Your task to perform on an android device: add a label to a message in the gmail app Image 0: 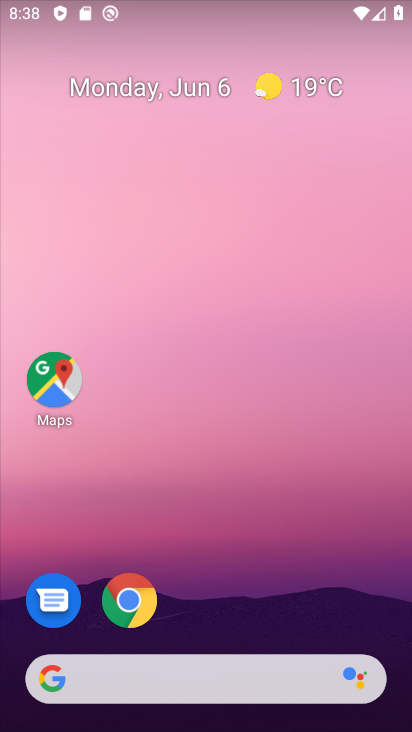
Step 0: press home button
Your task to perform on an android device: add a label to a message in the gmail app Image 1: 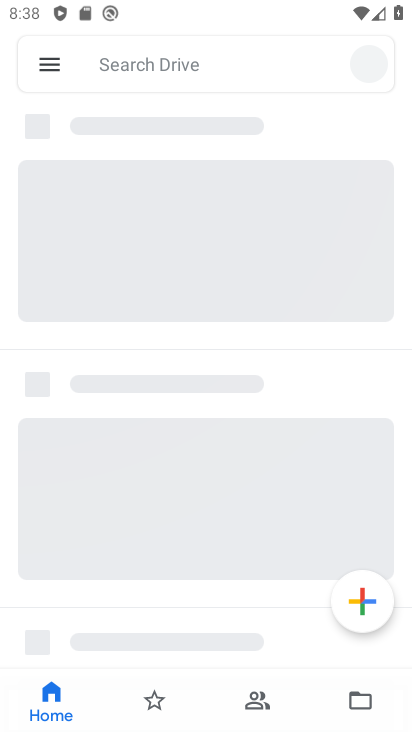
Step 1: click (180, 4)
Your task to perform on an android device: add a label to a message in the gmail app Image 2: 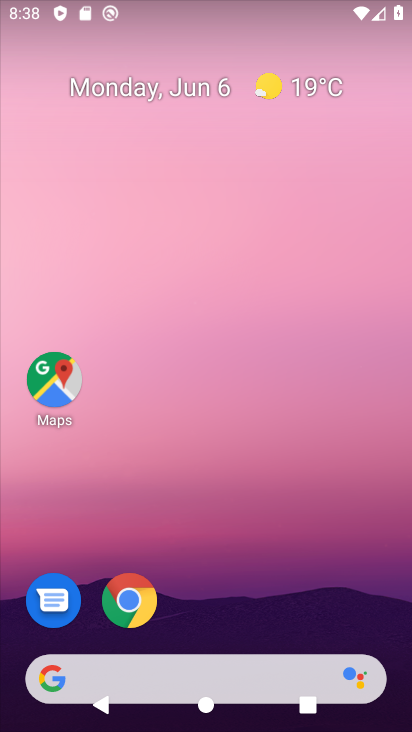
Step 2: drag from (261, 542) to (244, 11)
Your task to perform on an android device: add a label to a message in the gmail app Image 3: 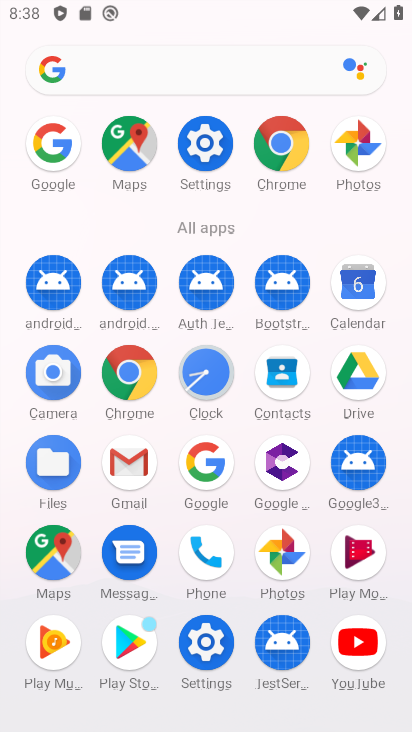
Step 3: click (123, 462)
Your task to perform on an android device: add a label to a message in the gmail app Image 4: 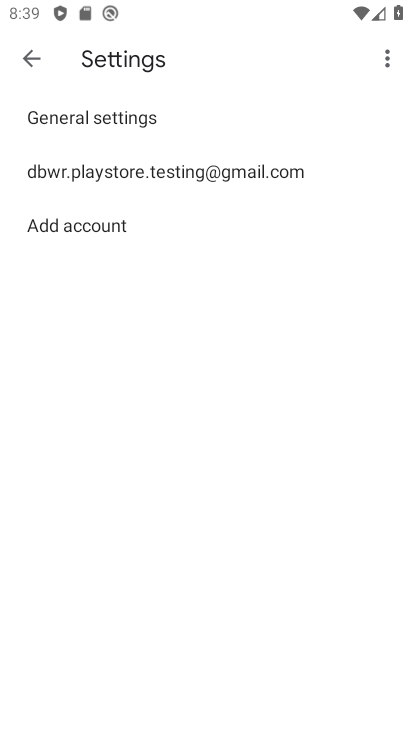
Step 4: click (34, 66)
Your task to perform on an android device: add a label to a message in the gmail app Image 5: 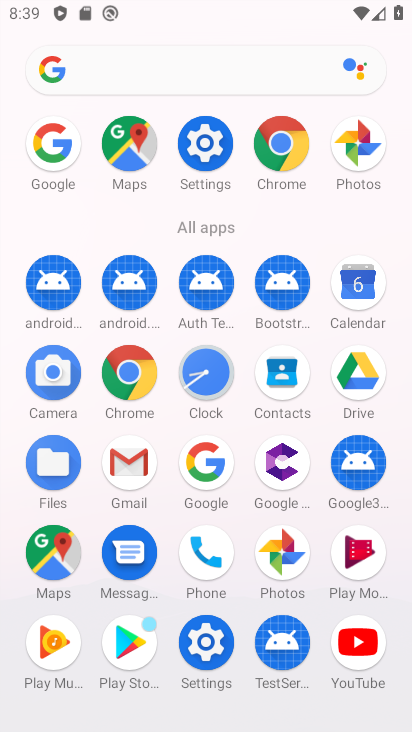
Step 5: click (143, 468)
Your task to perform on an android device: add a label to a message in the gmail app Image 6: 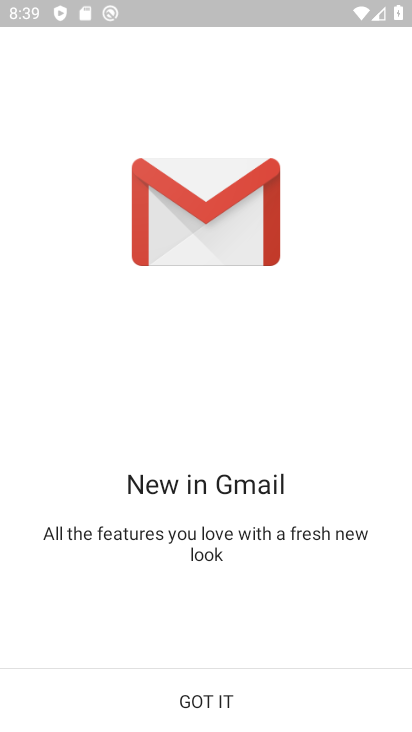
Step 6: click (218, 684)
Your task to perform on an android device: add a label to a message in the gmail app Image 7: 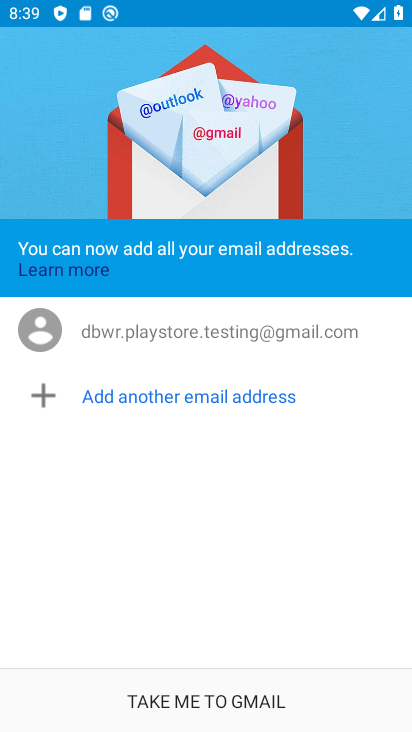
Step 7: click (216, 688)
Your task to perform on an android device: add a label to a message in the gmail app Image 8: 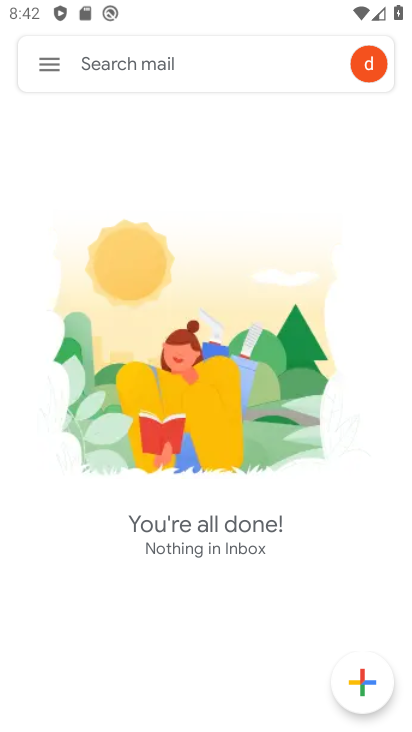
Step 8: task complete